Your task to perform on an android device: turn on showing notifications on the lock screen Image 0: 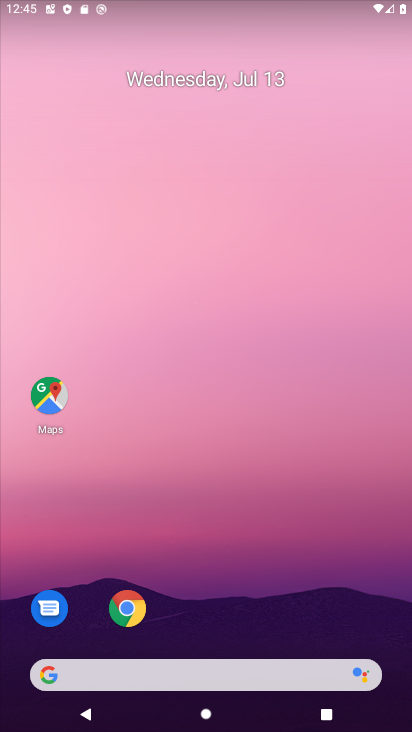
Step 0: drag from (247, 467) to (289, 77)
Your task to perform on an android device: turn on showing notifications on the lock screen Image 1: 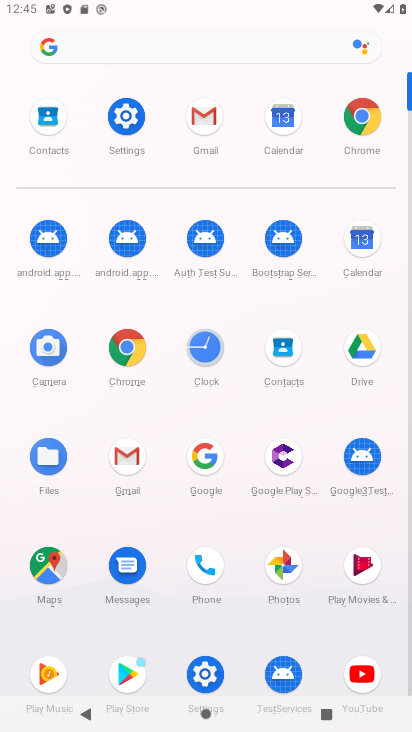
Step 1: click (130, 119)
Your task to perform on an android device: turn on showing notifications on the lock screen Image 2: 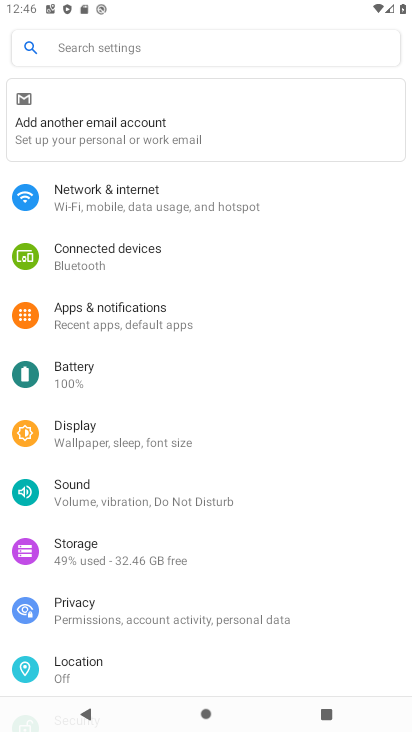
Step 2: click (121, 308)
Your task to perform on an android device: turn on showing notifications on the lock screen Image 3: 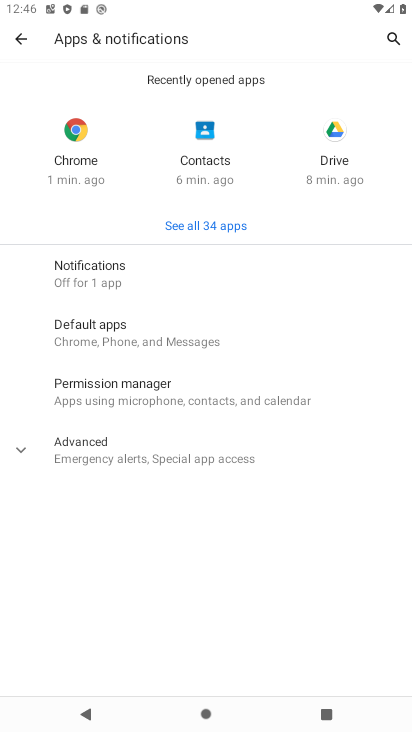
Step 3: click (153, 270)
Your task to perform on an android device: turn on showing notifications on the lock screen Image 4: 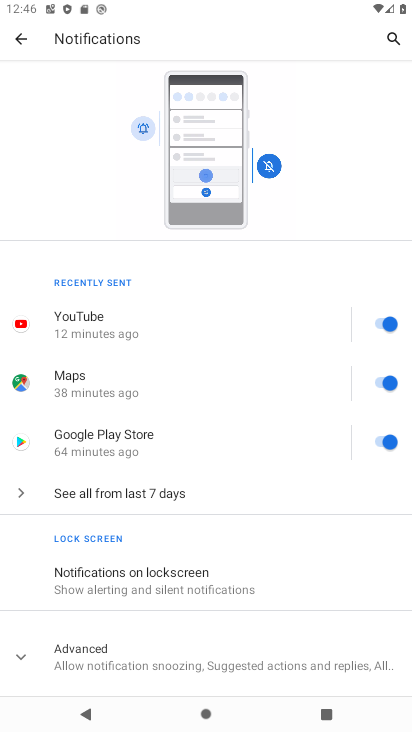
Step 4: click (276, 591)
Your task to perform on an android device: turn on showing notifications on the lock screen Image 5: 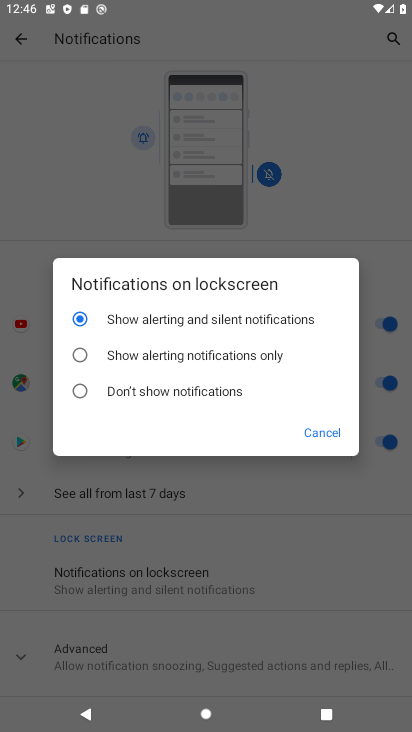
Step 5: click (79, 316)
Your task to perform on an android device: turn on showing notifications on the lock screen Image 6: 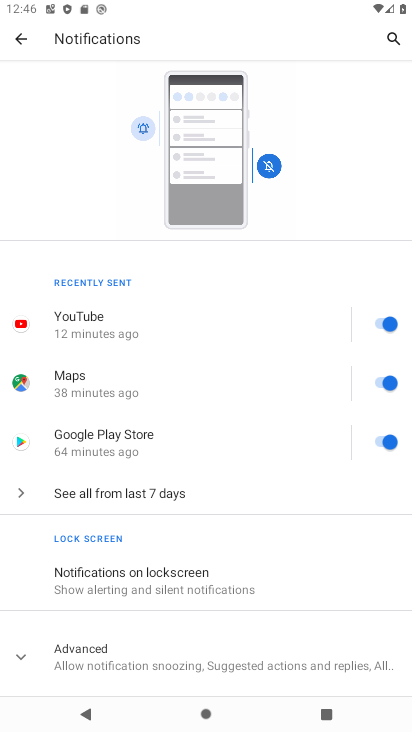
Step 6: task complete